Your task to perform on an android device: See recent photos Image 0: 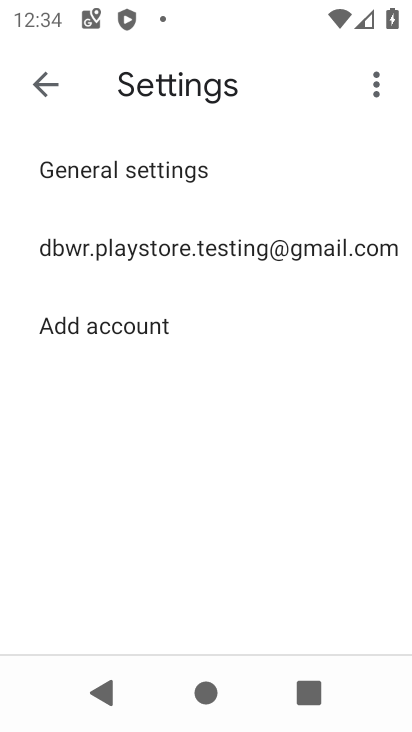
Step 0: press home button
Your task to perform on an android device: See recent photos Image 1: 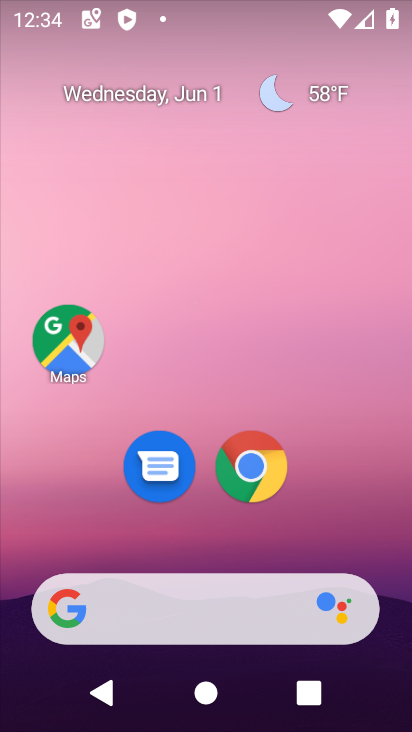
Step 1: drag from (367, 510) to (295, 65)
Your task to perform on an android device: See recent photos Image 2: 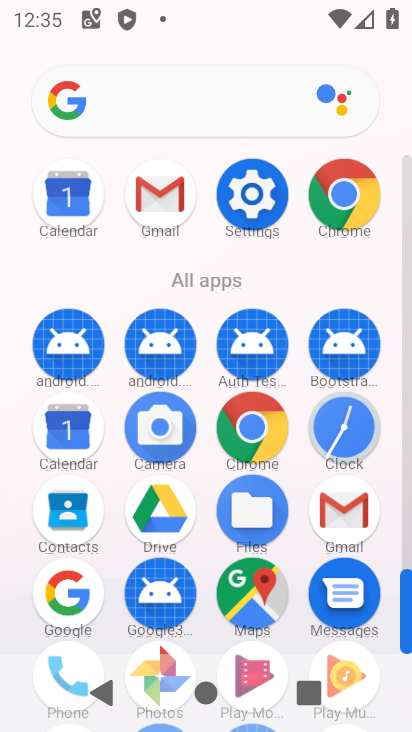
Step 2: click (162, 650)
Your task to perform on an android device: See recent photos Image 3: 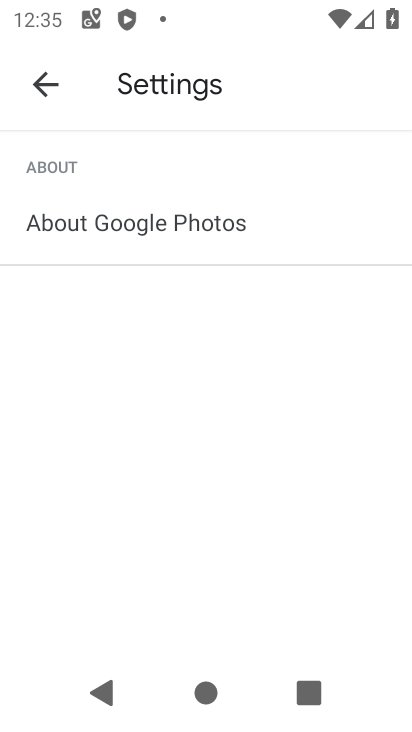
Step 3: click (40, 84)
Your task to perform on an android device: See recent photos Image 4: 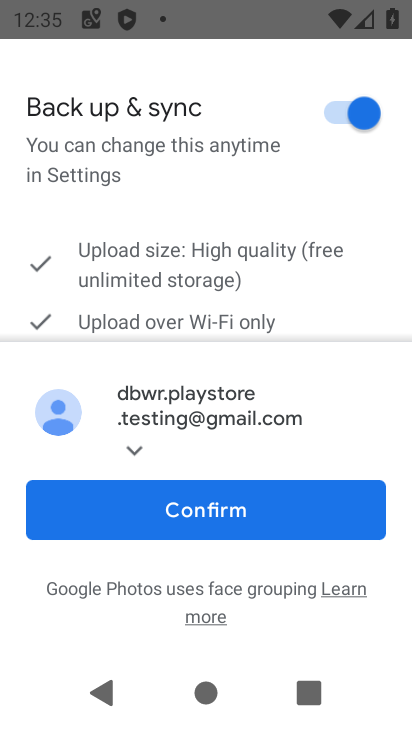
Step 4: click (253, 503)
Your task to perform on an android device: See recent photos Image 5: 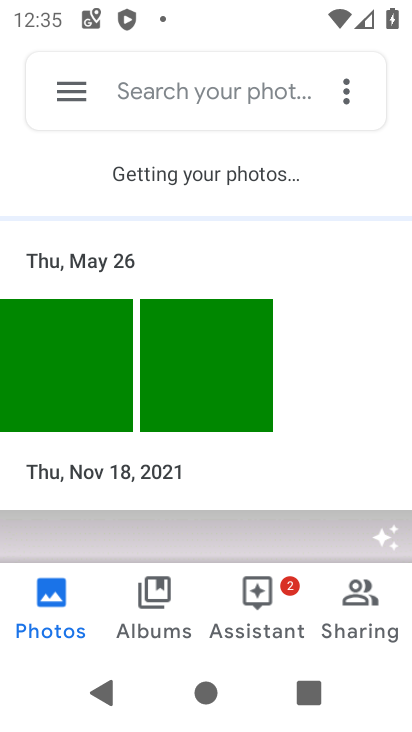
Step 5: task complete